Your task to perform on an android device: turn off smart reply in the gmail app Image 0: 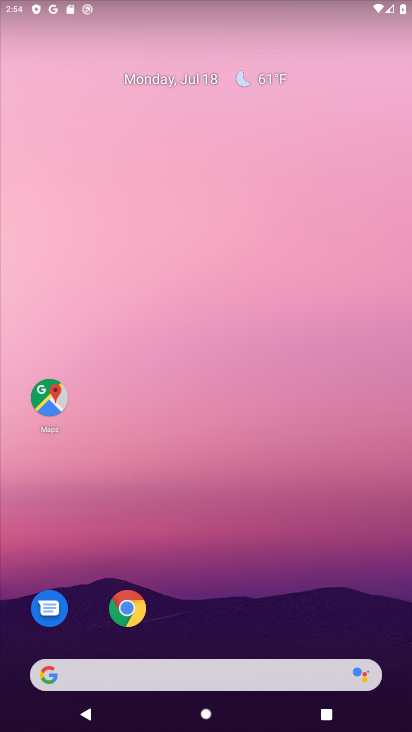
Step 0: drag from (245, 649) to (225, 131)
Your task to perform on an android device: turn off smart reply in the gmail app Image 1: 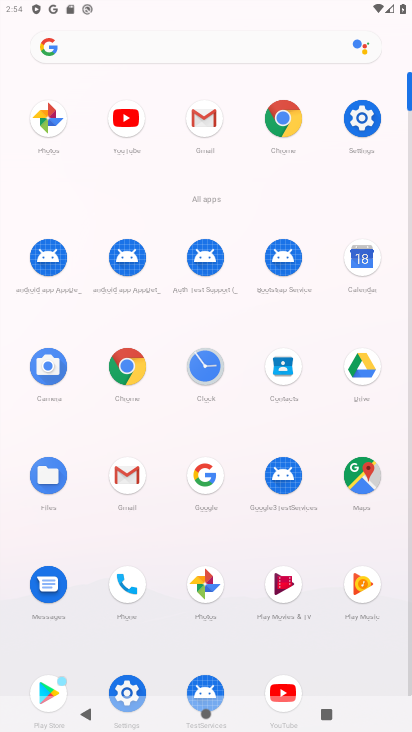
Step 1: click (125, 474)
Your task to perform on an android device: turn off smart reply in the gmail app Image 2: 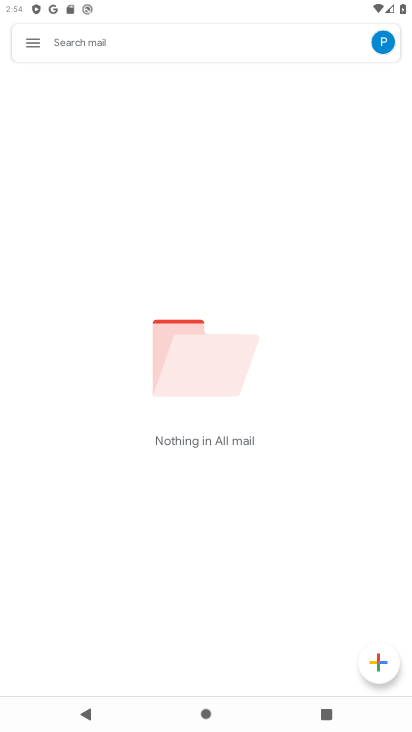
Step 2: click (25, 37)
Your task to perform on an android device: turn off smart reply in the gmail app Image 3: 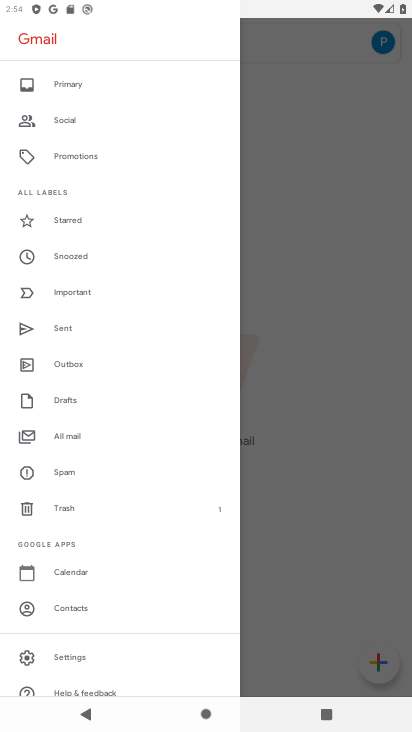
Step 3: click (64, 658)
Your task to perform on an android device: turn off smart reply in the gmail app Image 4: 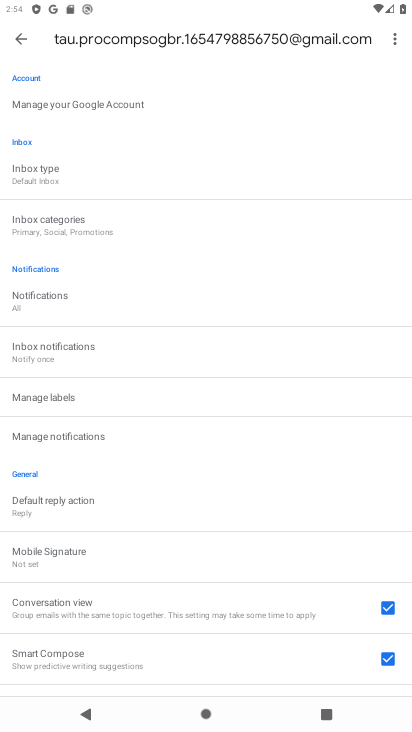
Step 4: drag from (110, 669) to (93, 471)
Your task to perform on an android device: turn off smart reply in the gmail app Image 5: 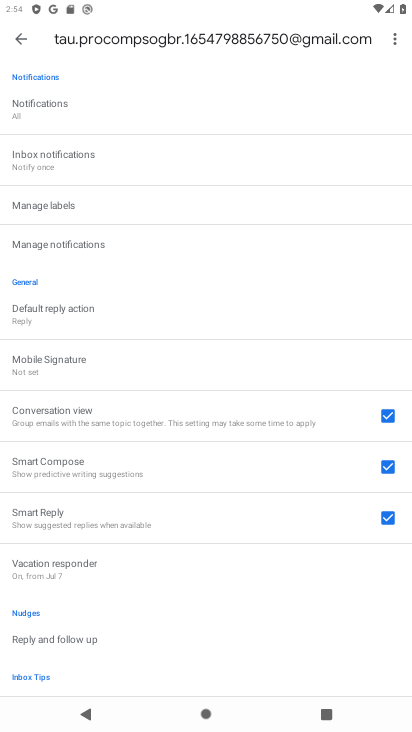
Step 5: click (385, 516)
Your task to perform on an android device: turn off smart reply in the gmail app Image 6: 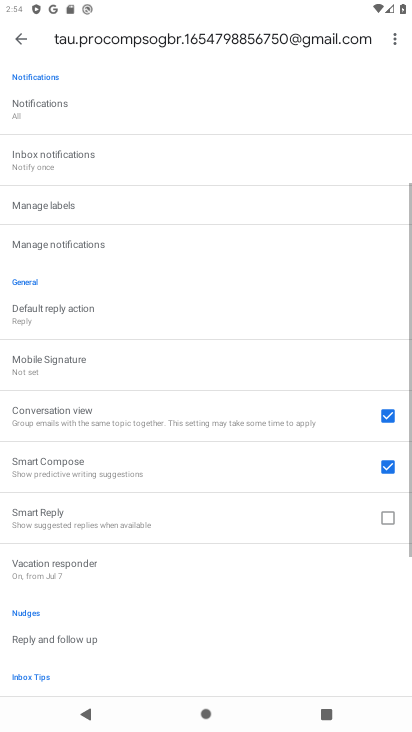
Step 6: task complete